Your task to perform on an android device: Open Maps and search for coffee Image 0: 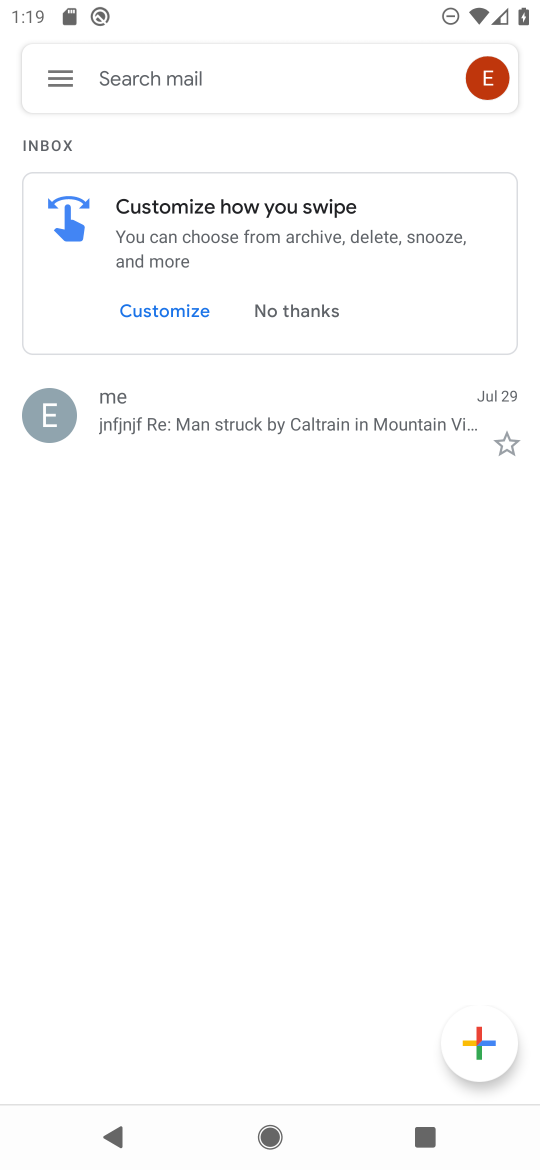
Step 0: press back button
Your task to perform on an android device: Open Maps and search for coffee Image 1: 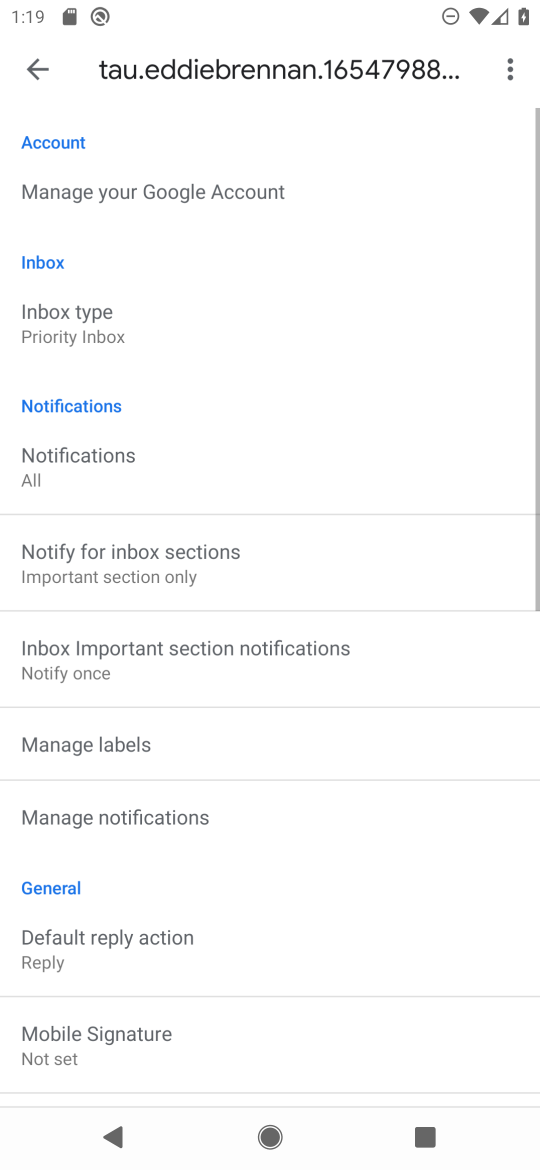
Step 1: press back button
Your task to perform on an android device: Open Maps and search for coffee Image 2: 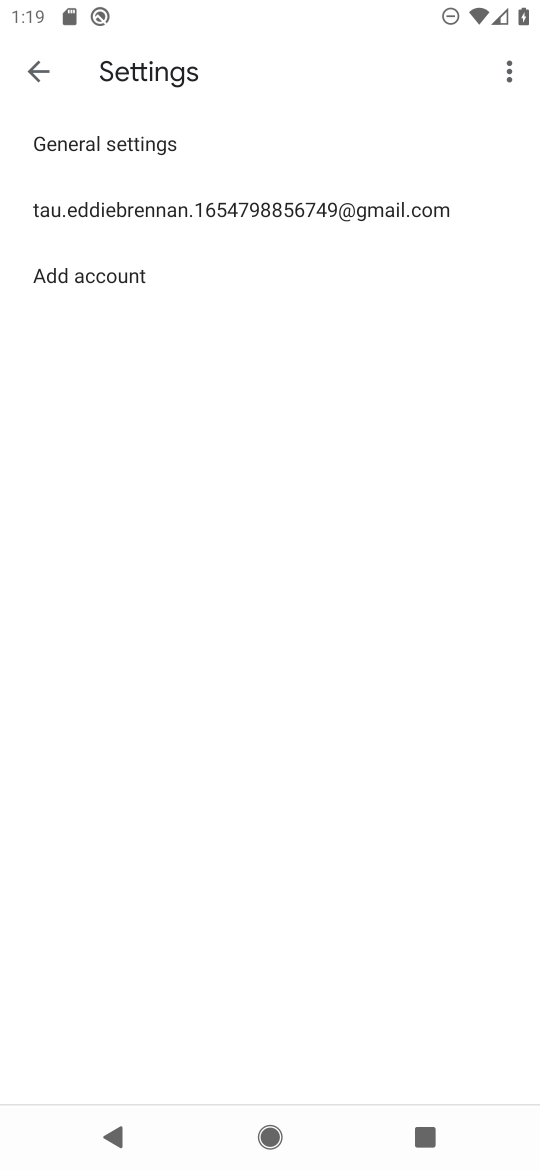
Step 2: press back button
Your task to perform on an android device: Open Maps and search for coffee Image 3: 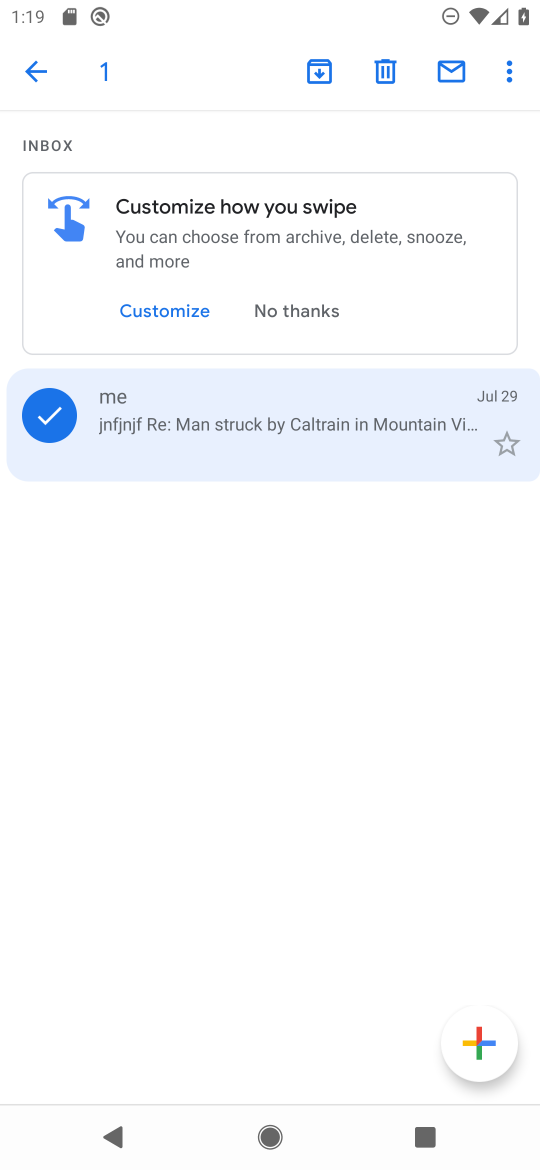
Step 3: press back button
Your task to perform on an android device: Open Maps and search for coffee Image 4: 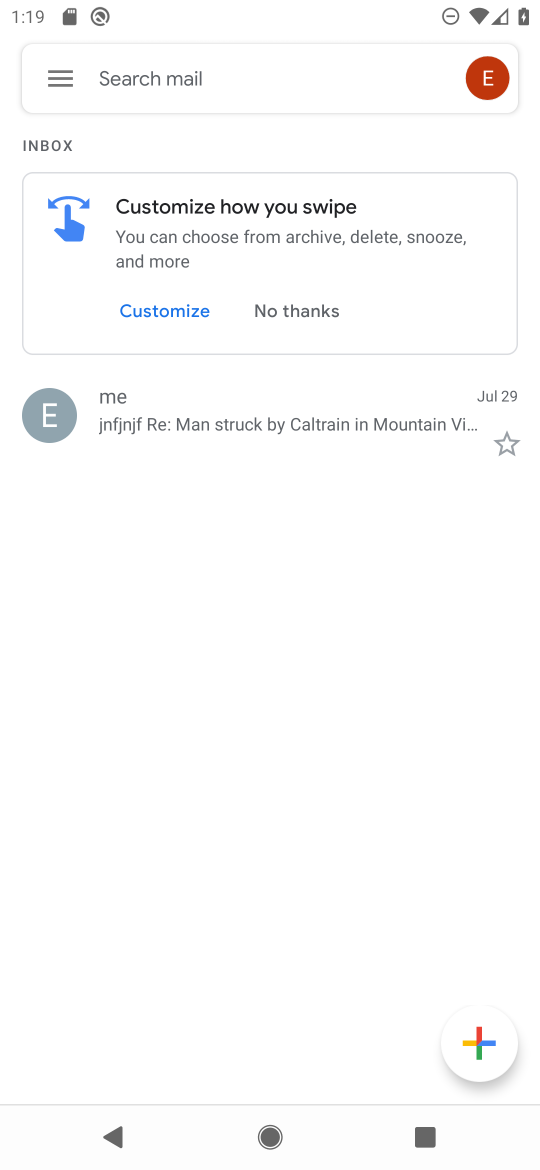
Step 4: press back button
Your task to perform on an android device: Open Maps and search for coffee Image 5: 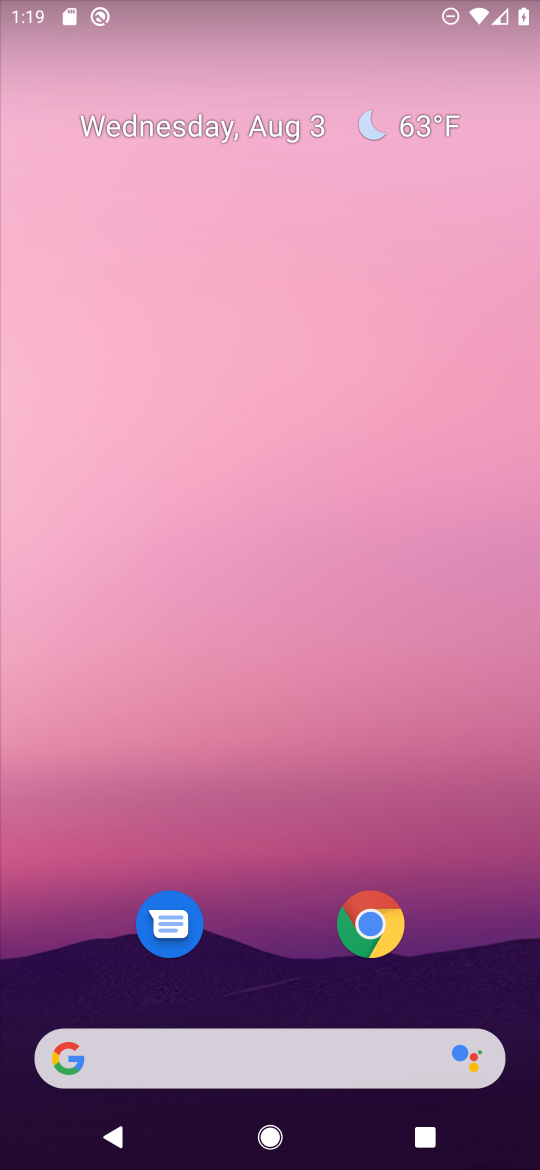
Step 5: drag from (261, 931) to (364, 123)
Your task to perform on an android device: Open Maps and search for coffee Image 6: 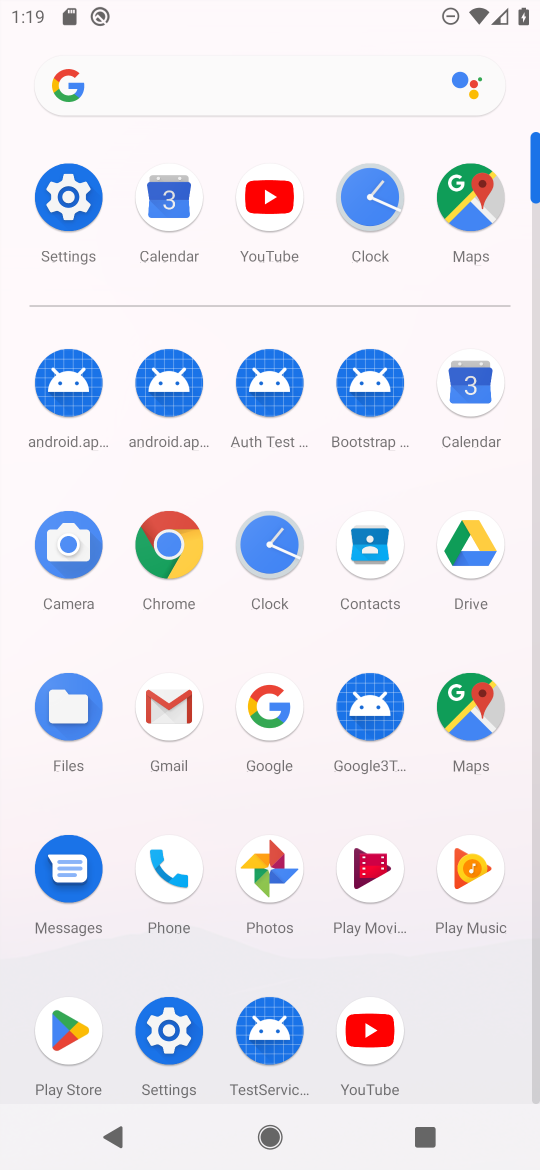
Step 6: click (475, 193)
Your task to perform on an android device: Open Maps and search for coffee Image 7: 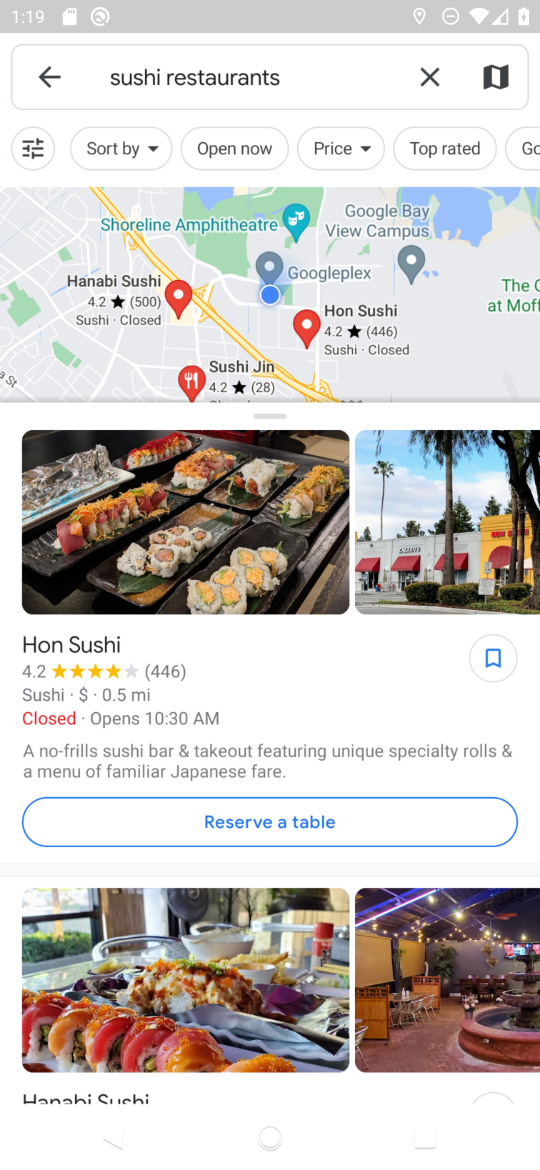
Step 7: click (426, 76)
Your task to perform on an android device: Open Maps and search for coffee Image 8: 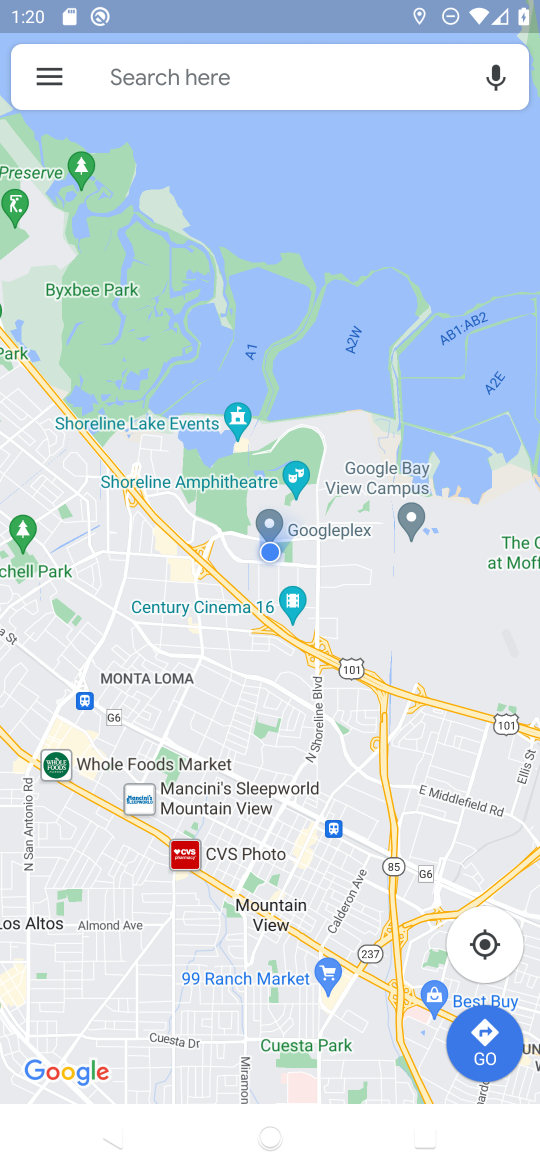
Step 8: click (299, 81)
Your task to perform on an android device: Open Maps and search for coffee Image 9: 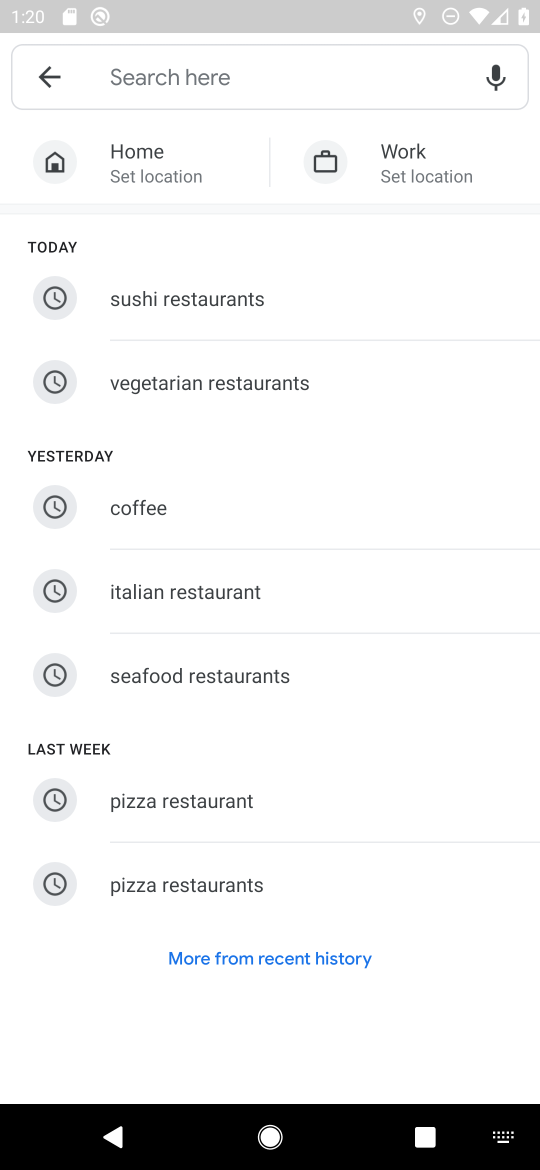
Step 9: click (117, 504)
Your task to perform on an android device: Open Maps and search for coffee Image 10: 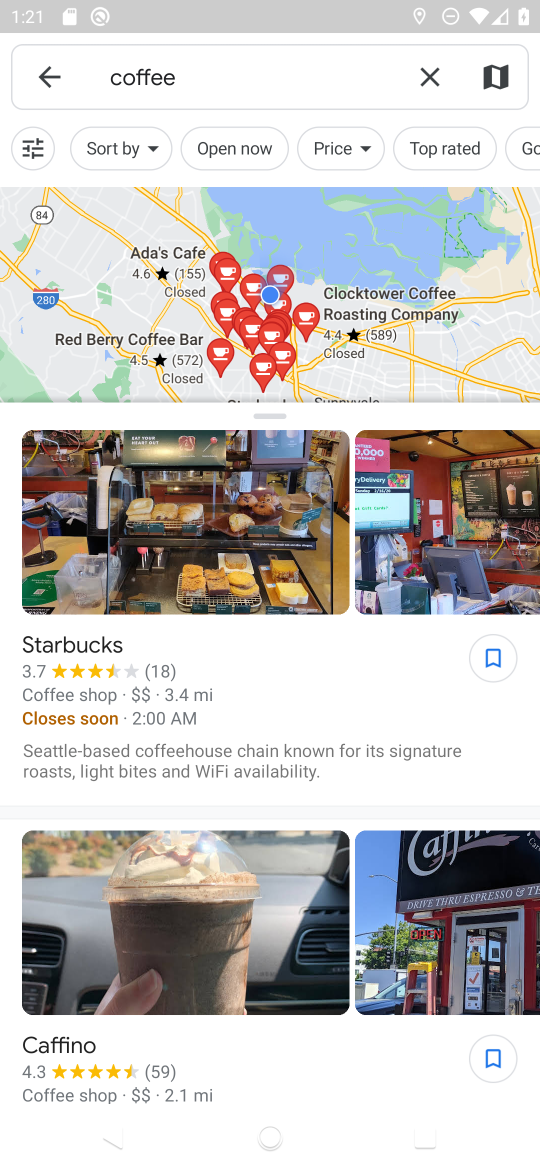
Step 10: task complete